Your task to perform on an android device: open a bookmark in the chrome app Image 0: 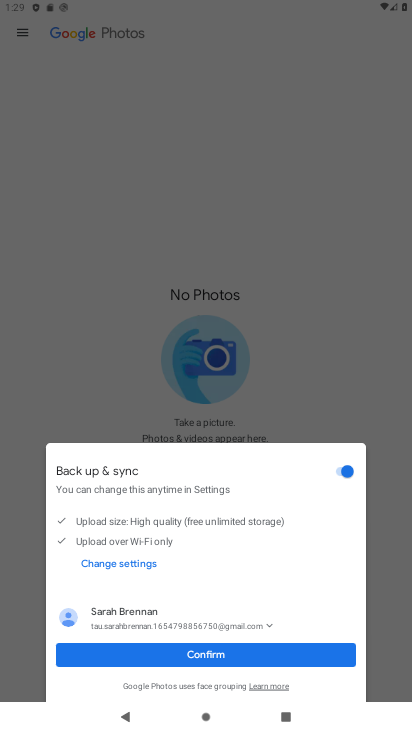
Step 0: press home button
Your task to perform on an android device: open a bookmark in the chrome app Image 1: 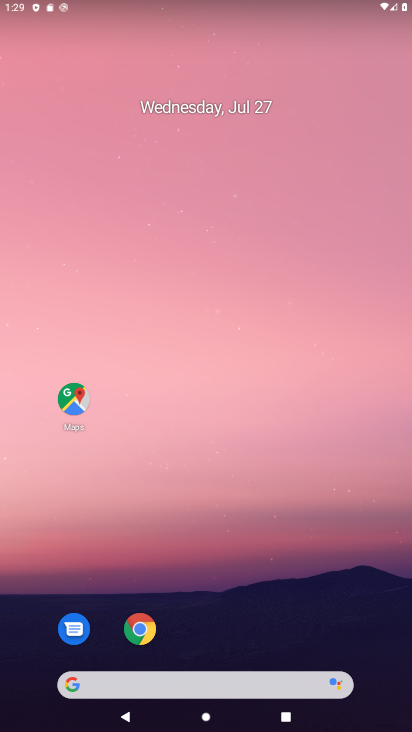
Step 1: click (132, 634)
Your task to perform on an android device: open a bookmark in the chrome app Image 2: 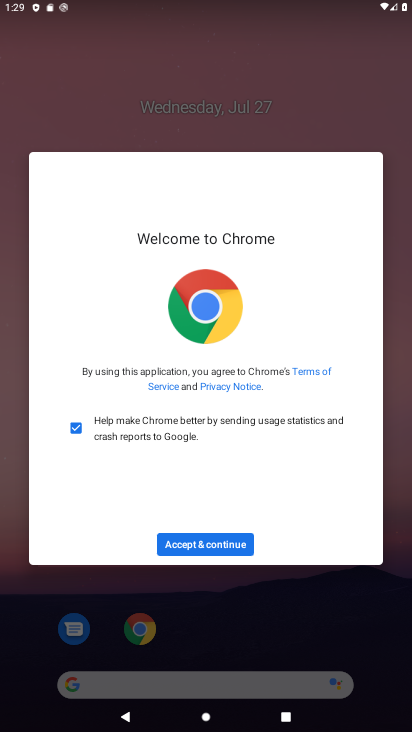
Step 2: click (221, 539)
Your task to perform on an android device: open a bookmark in the chrome app Image 3: 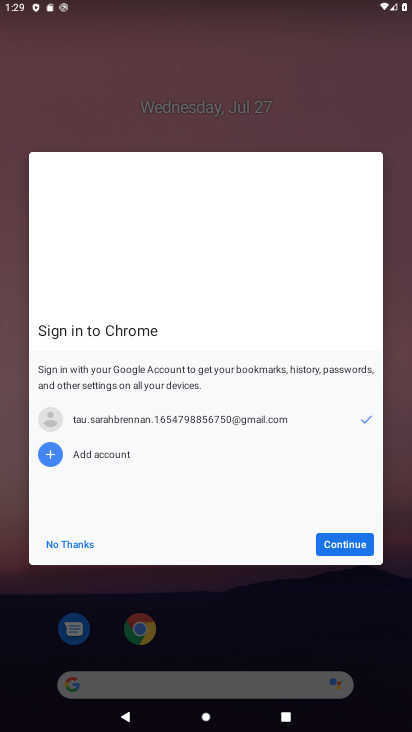
Step 3: click (349, 544)
Your task to perform on an android device: open a bookmark in the chrome app Image 4: 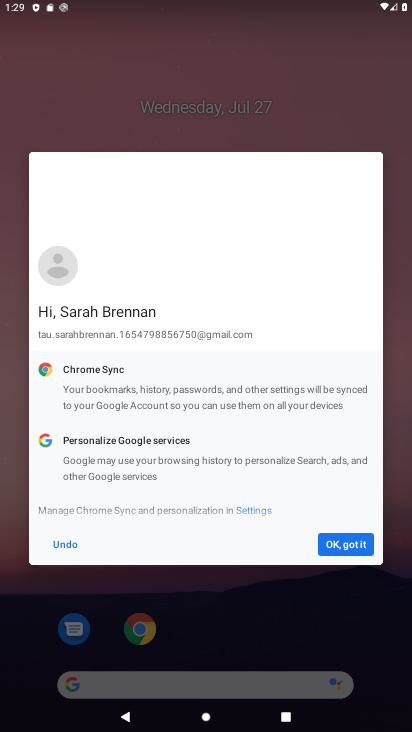
Step 4: click (353, 536)
Your task to perform on an android device: open a bookmark in the chrome app Image 5: 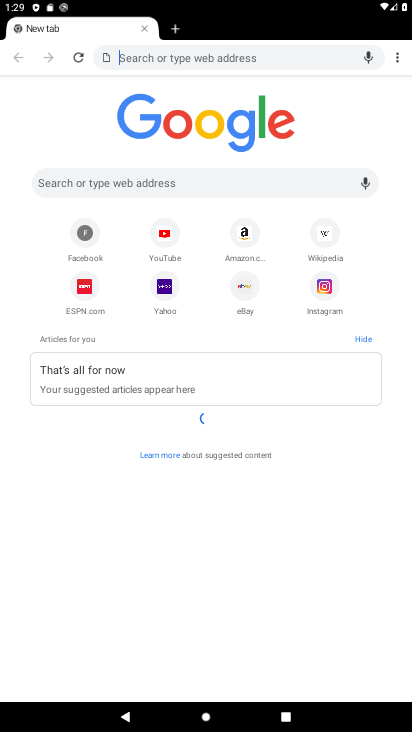
Step 5: click (397, 66)
Your task to perform on an android device: open a bookmark in the chrome app Image 6: 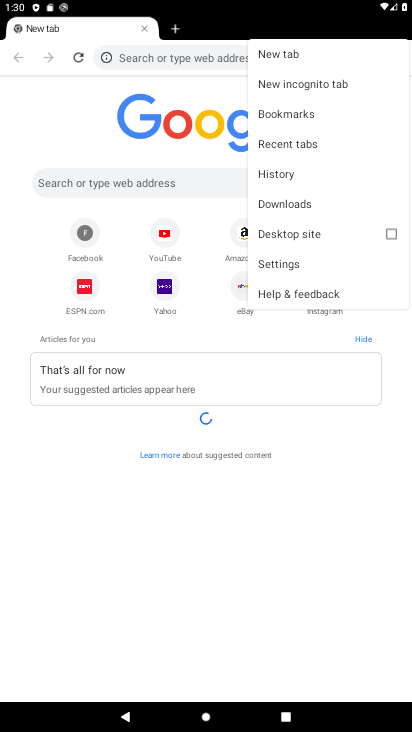
Step 6: click (273, 116)
Your task to perform on an android device: open a bookmark in the chrome app Image 7: 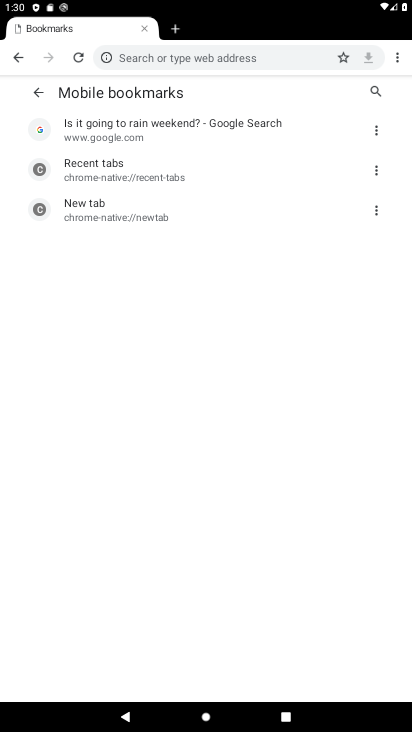
Step 7: click (113, 141)
Your task to perform on an android device: open a bookmark in the chrome app Image 8: 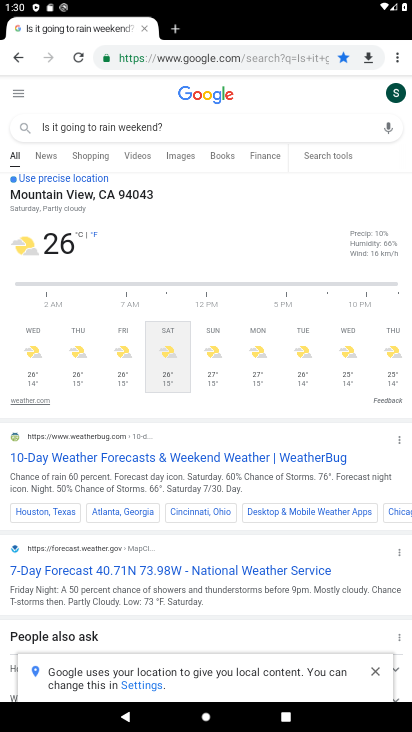
Step 8: task complete